Your task to perform on an android device: allow cookies in the chrome app Image 0: 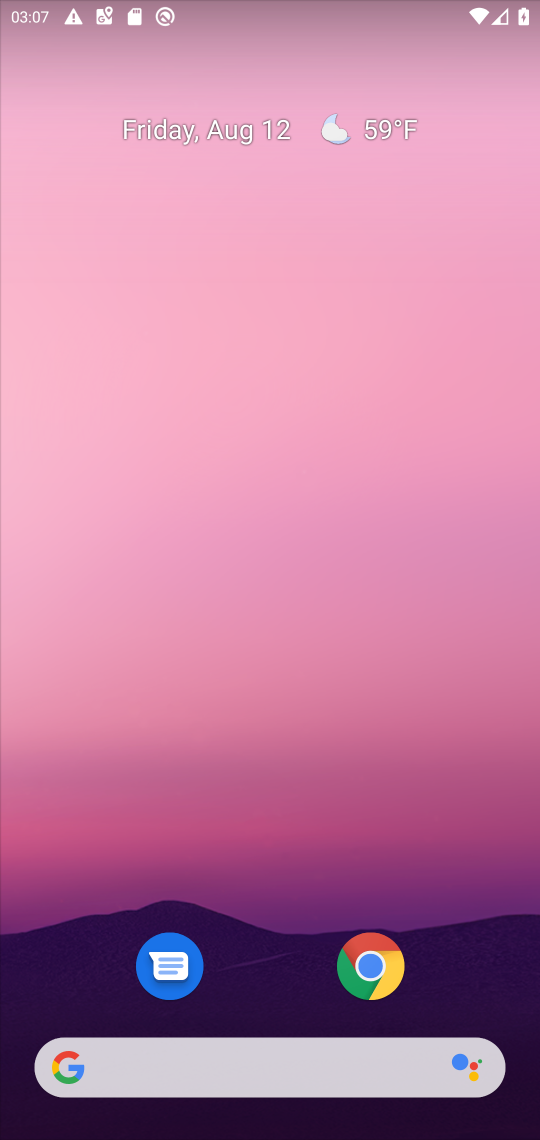
Step 0: drag from (283, 824) to (430, 7)
Your task to perform on an android device: allow cookies in the chrome app Image 1: 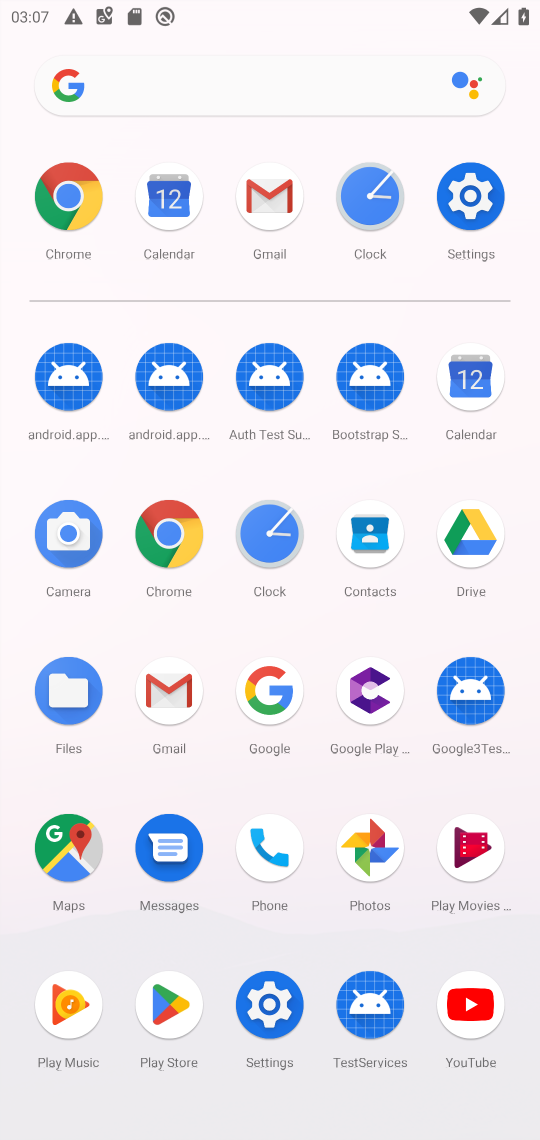
Step 1: click (168, 527)
Your task to perform on an android device: allow cookies in the chrome app Image 2: 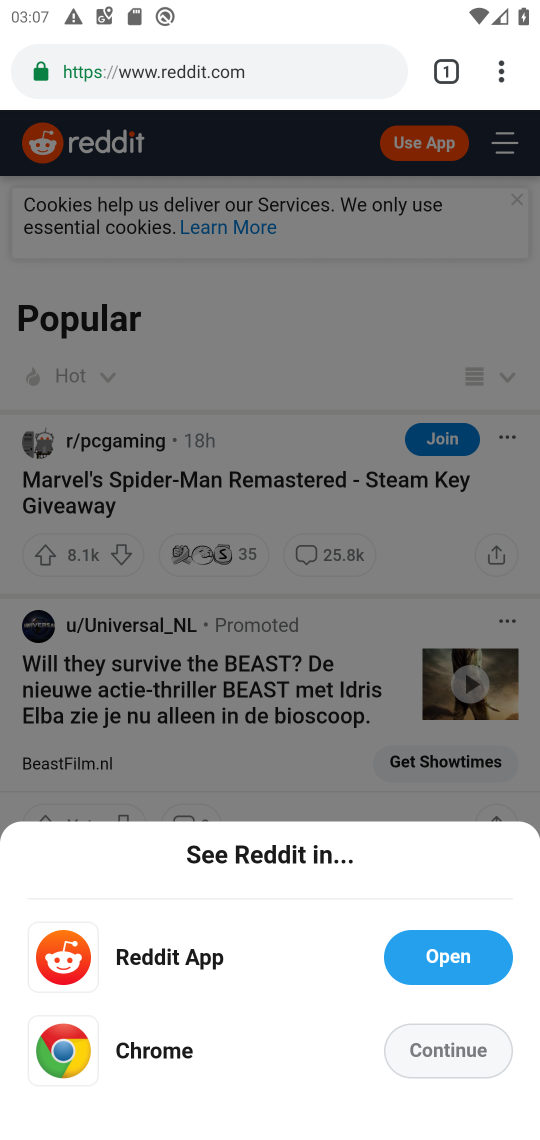
Step 2: drag from (499, 55) to (229, 851)
Your task to perform on an android device: allow cookies in the chrome app Image 3: 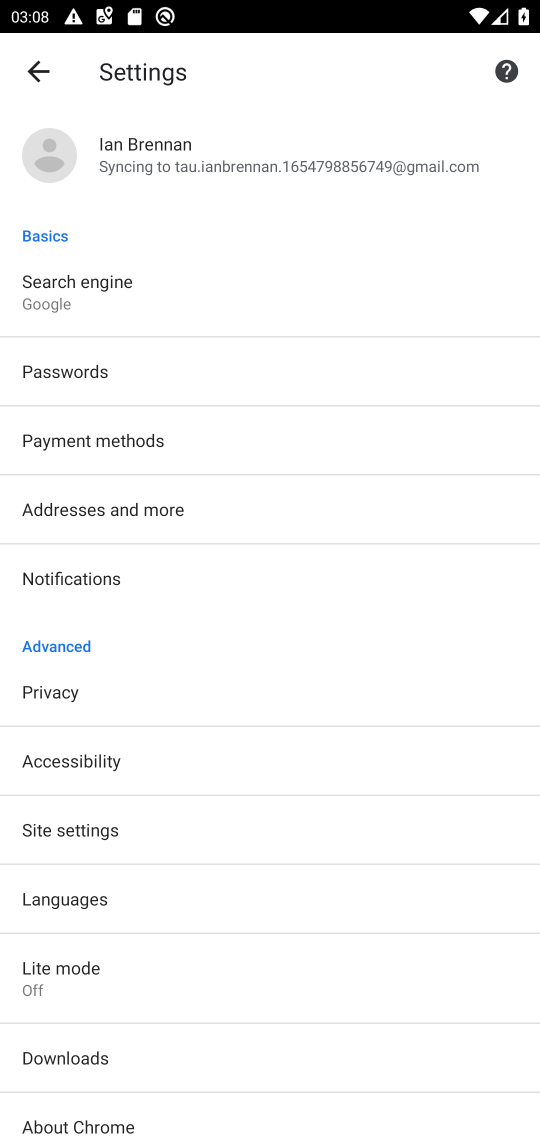
Step 3: click (69, 848)
Your task to perform on an android device: allow cookies in the chrome app Image 4: 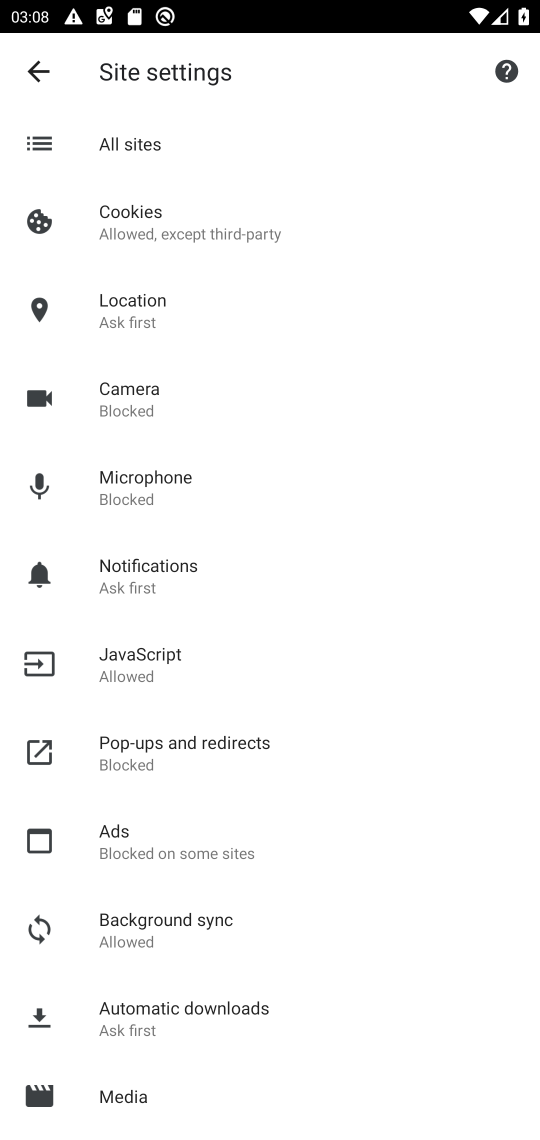
Step 4: click (148, 214)
Your task to perform on an android device: allow cookies in the chrome app Image 5: 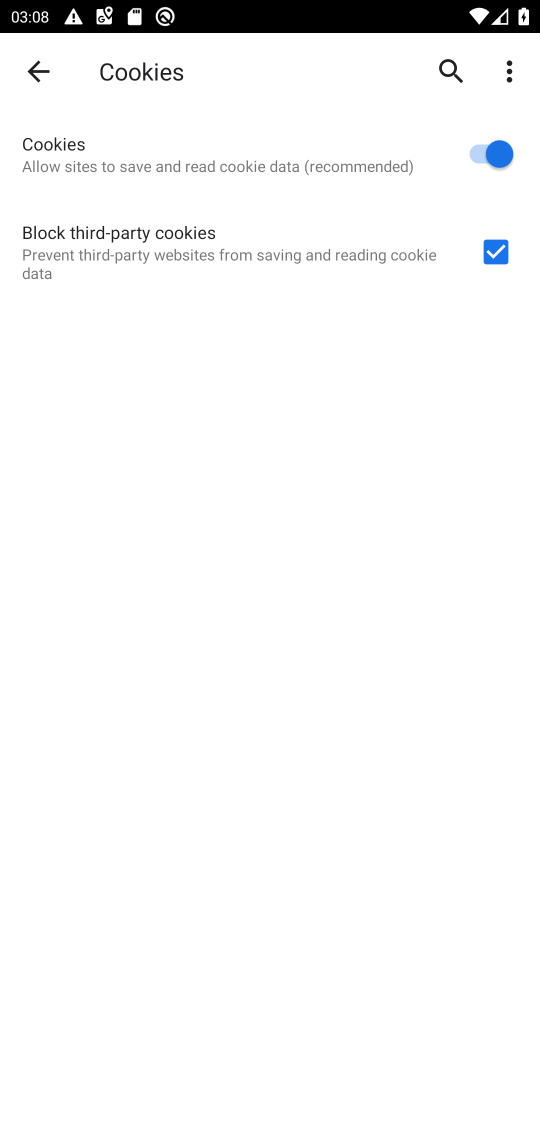
Step 5: task complete